Your task to perform on an android device: Open network settings Image 0: 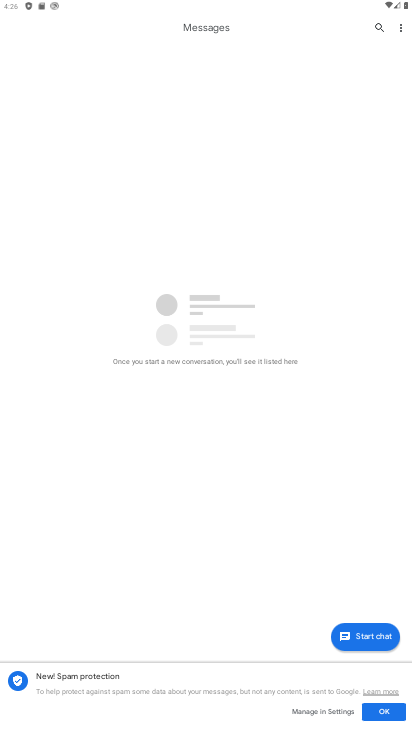
Step 0: press home button
Your task to perform on an android device: Open network settings Image 1: 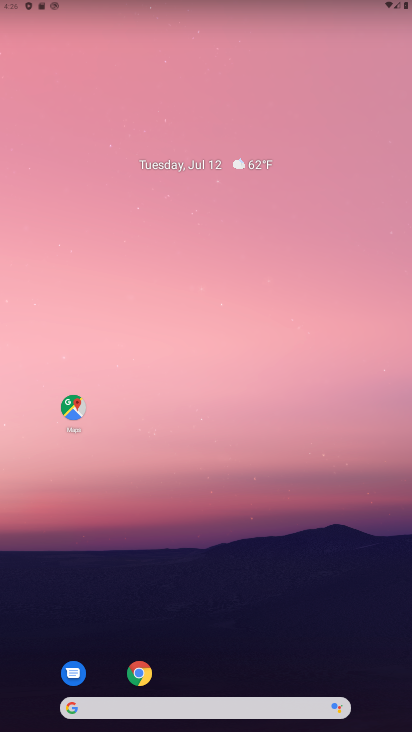
Step 1: drag from (202, 655) to (204, 93)
Your task to perform on an android device: Open network settings Image 2: 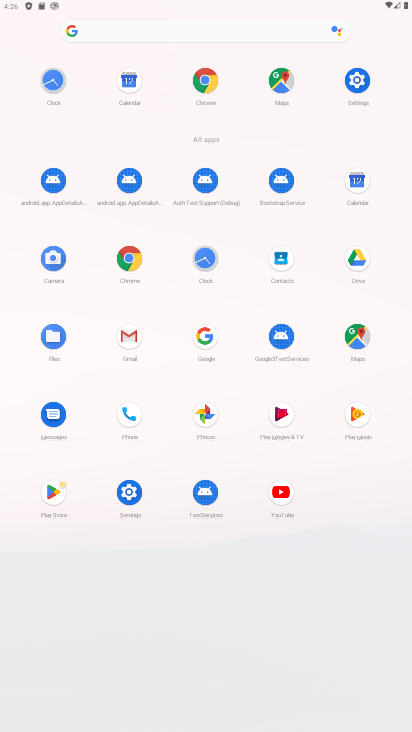
Step 2: click (358, 83)
Your task to perform on an android device: Open network settings Image 3: 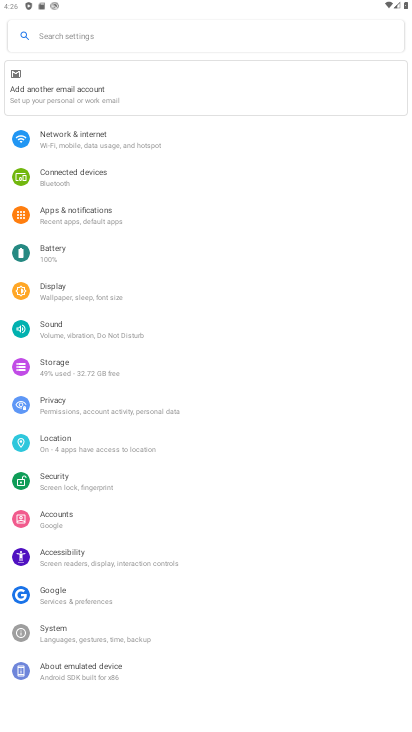
Step 3: click (85, 144)
Your task to perform on an android device: Open network settings Image 4: 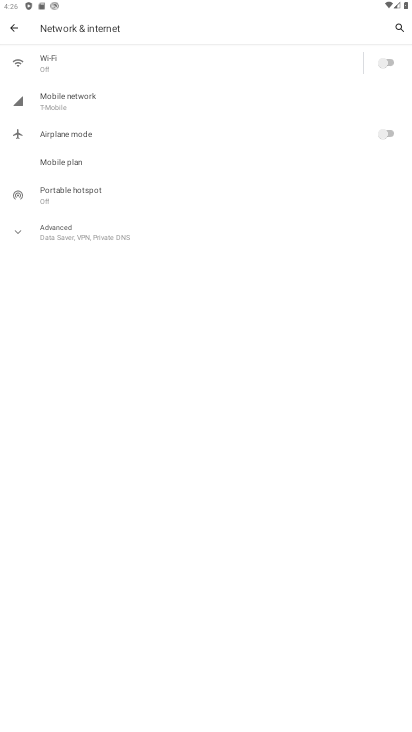
Step 4: click (58, 96)
Your task to perform on an android device: Open network settings Image 5: 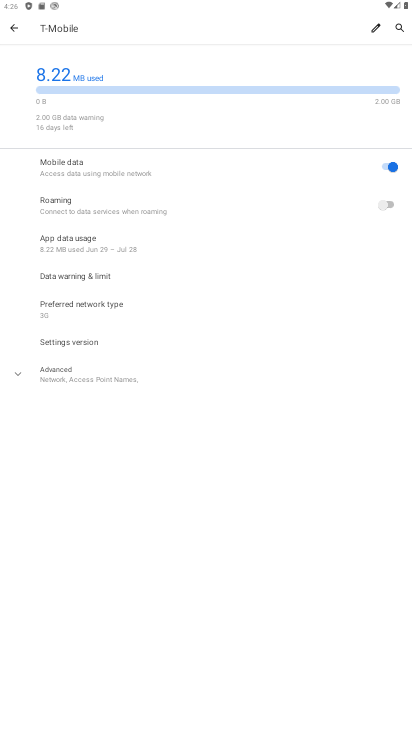
Step 5: task complete